Your task to perform on an android device: Open Reddit.com Image 0: 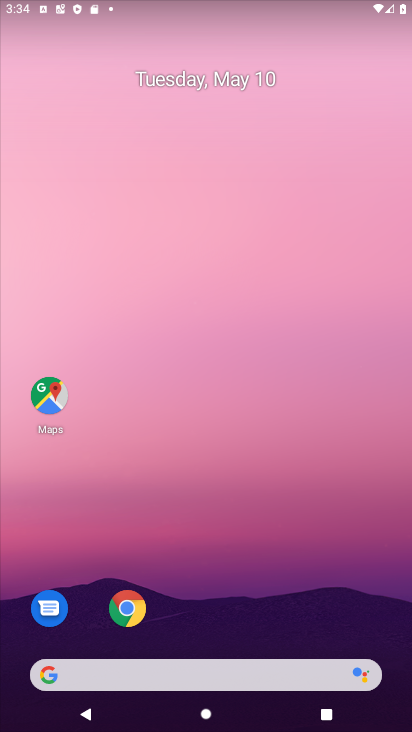
Step 0: click (125, 607)
Your task to perform on an android device: Open Reddit.com Image 1: 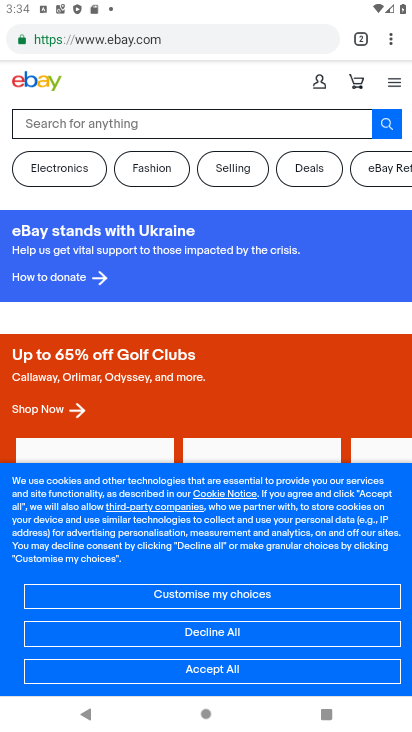
Step 1: click (171, 40)
Your task to perform on an android device: Open Reddit.com Image 2: 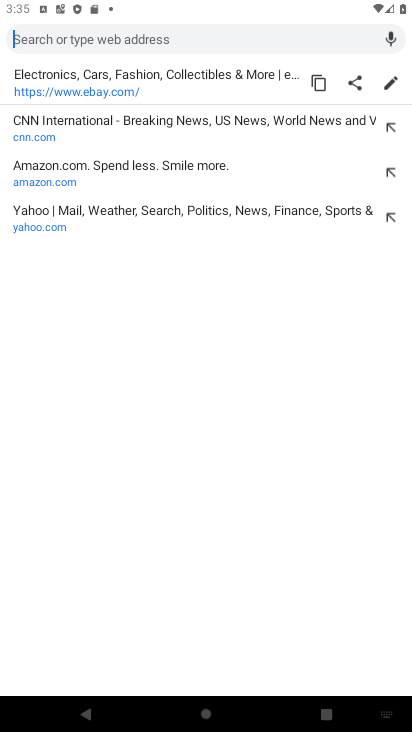
Step 2: type "reddit.com"
Your task to perform on an android device: Open Reddit.com Image 3: 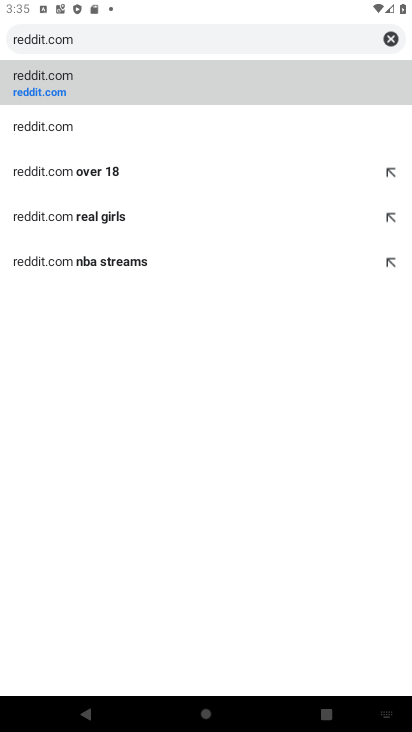
Step 3: click (38, 78)
Your task to perform on an android device: Open Reddit.com Image 4: 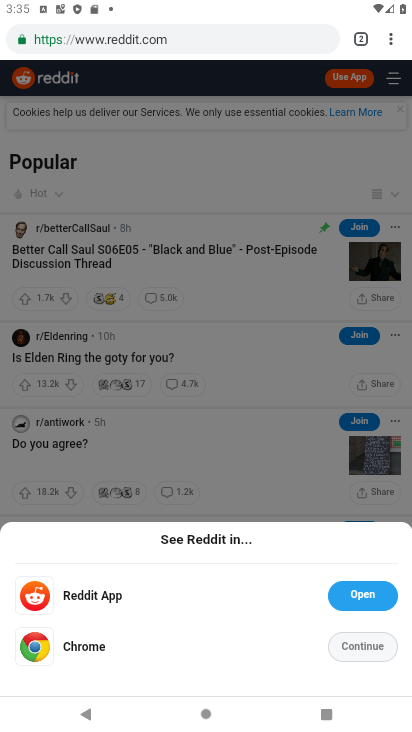
Step 4: task complete